Your task to perform on an android device: Open accessibility settings Image 0: 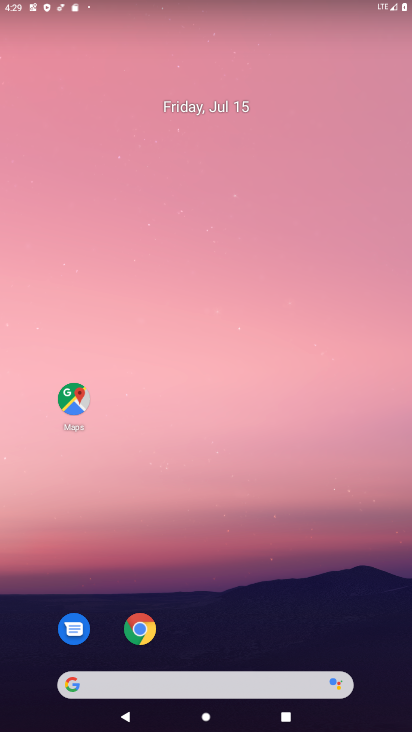
Step 0: press home button
Your task to perform on an android device: Open accessibility settings Image 1: 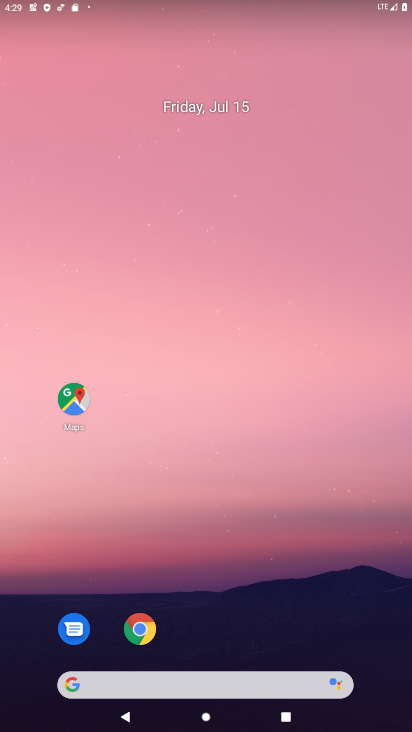
Step 1: drag from (207, 392) to (226, 24)
Your task to perform on an android device: Open accessibility settings Image 2: 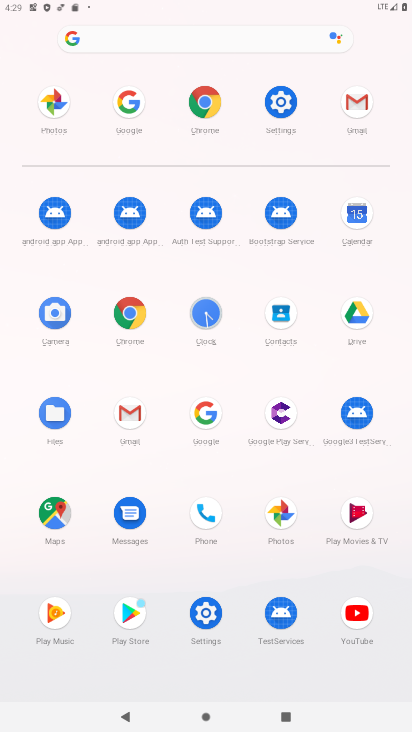
Step 2: click (280, 103)
Your task to perform on an android device: Open accessibility settings Image 3: 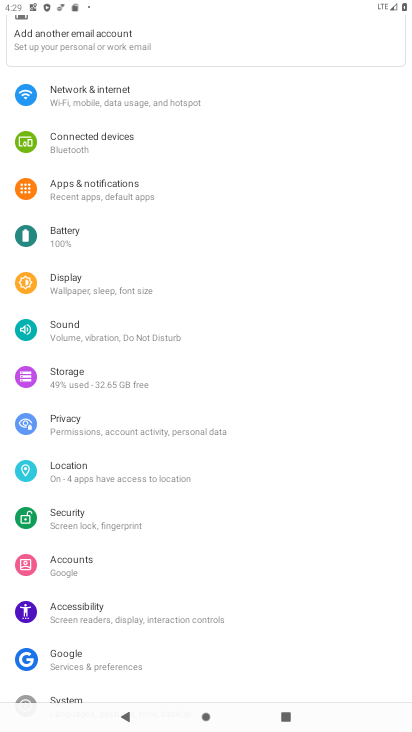
Step 3: click (91, 618)
Your task to perform on an android device: Open accessibility settings Image 4: 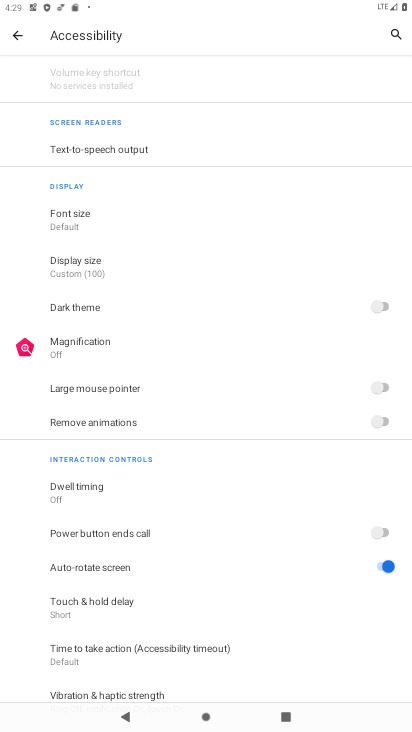
Step 4: task complete